Your task to perform on an android device: change the upload size in google photos Image 0: 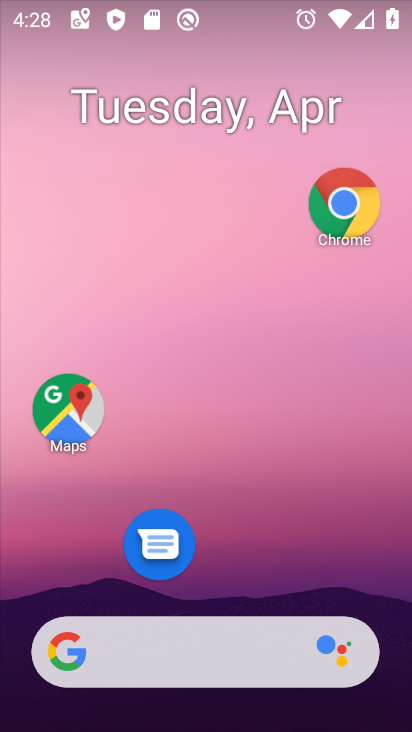
Step 0: drag from (224, 578) to (285, 5)
Your task to perform on an android device: change the upload size in google photos Image 1: 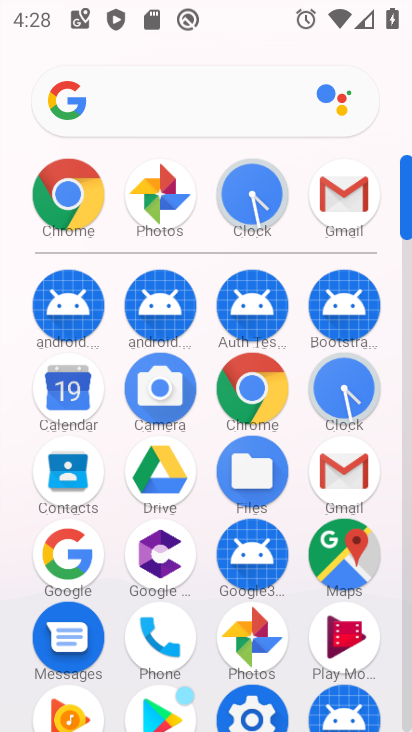
Step 1: drag from (251, 483) to (290, 8)
Your task to perform on an android device: change the upload size in google photos Image 2: 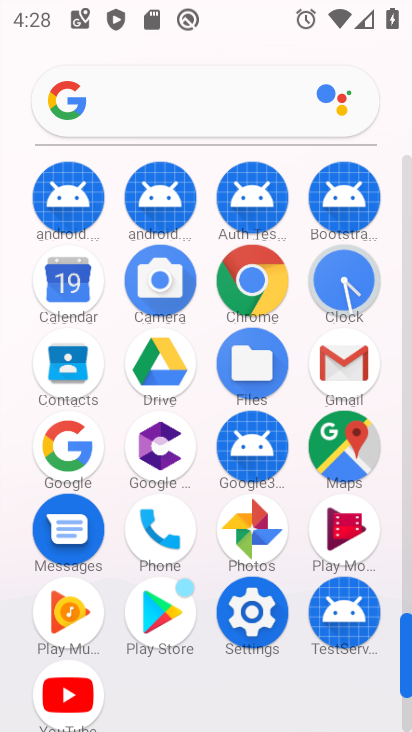
Step 2: click (252, 535)
Your task to perform on an android device: change the upload size in google photos Image 3: 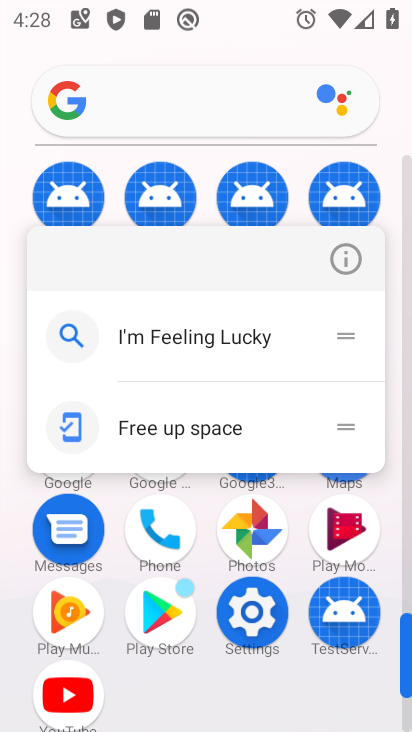
Step 3: click (248, 534)
Your task to perform on an android device: change the upload size in google photos Image 4: 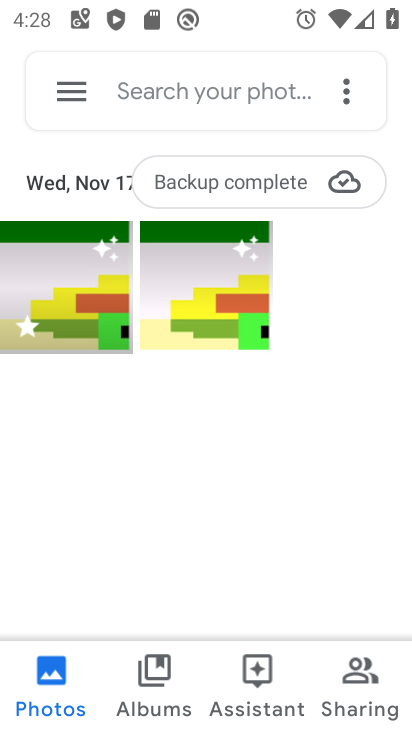
Step 4: click (64, 85)
Your task to perform on an android device: change the upload size in google photos Image 5: 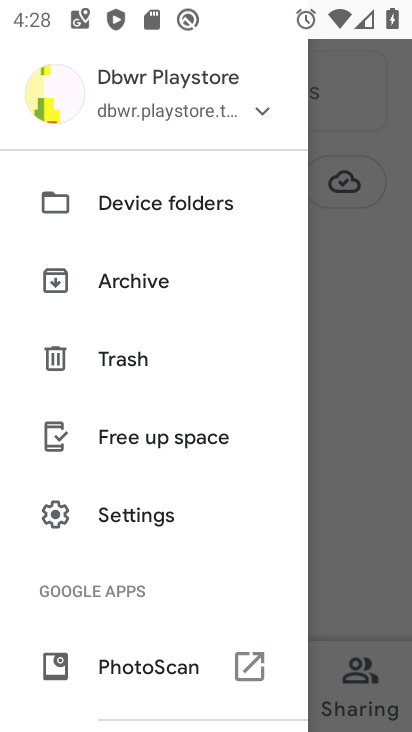
Step 5: click (136, 513)
Your task to perform on an android device: change the upload size in google photos Image 6: 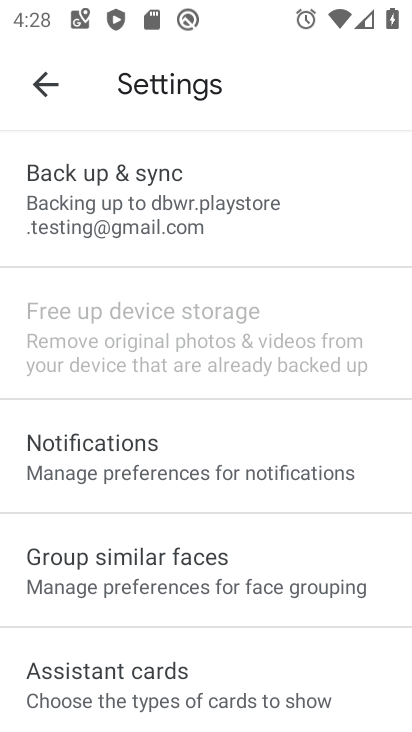
Step 6: click (143, 209)
Your task to perform on an android device: change the upload size in google photos Image 7: 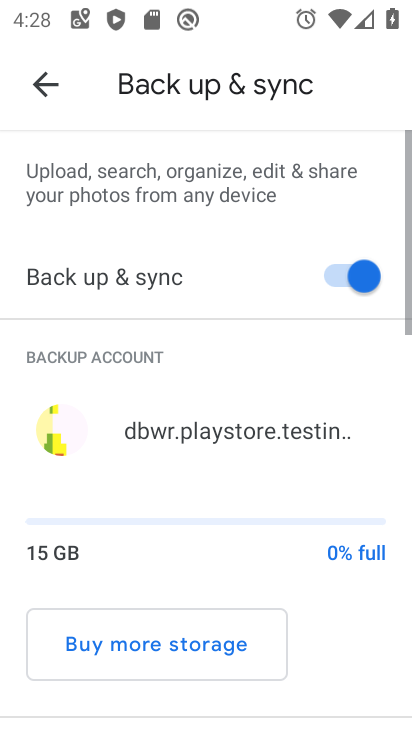
Step 7: drag from (155, 535) to (240, 145)
Your task to perform on an android device: change the upload size in google photos Image 8: 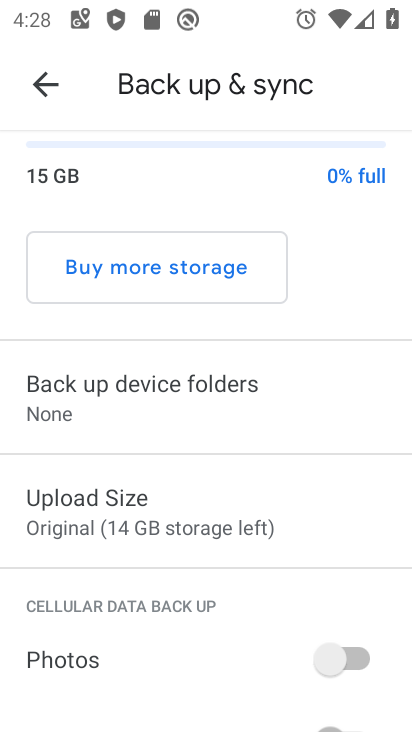
Step 8: click (138, 567)
Your task to perform on an android device: change the upload size in google photos Image 9: 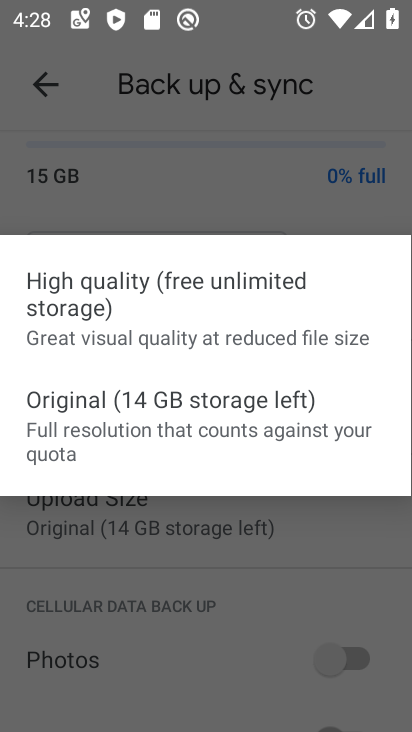
Step 9: click (126, 312)
Your task to perform on an android device: change the upload size in google photos Image 10: 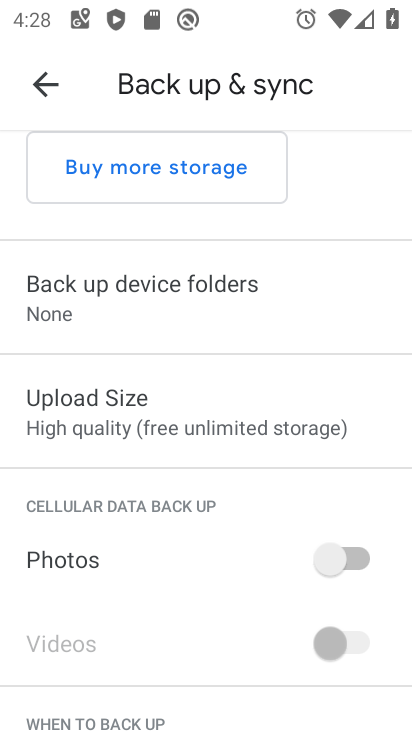
Step 10: task complete